Your task to perform on an android device: turn on location history Image 0: 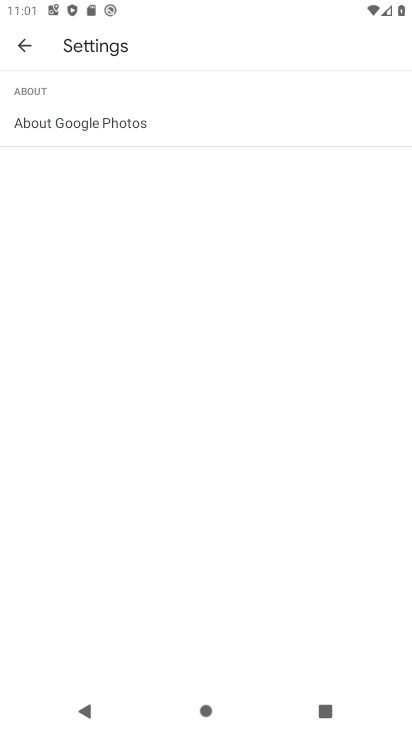
Step 0: press home button
Your task to perform on an android device: turn on location history Image 1: 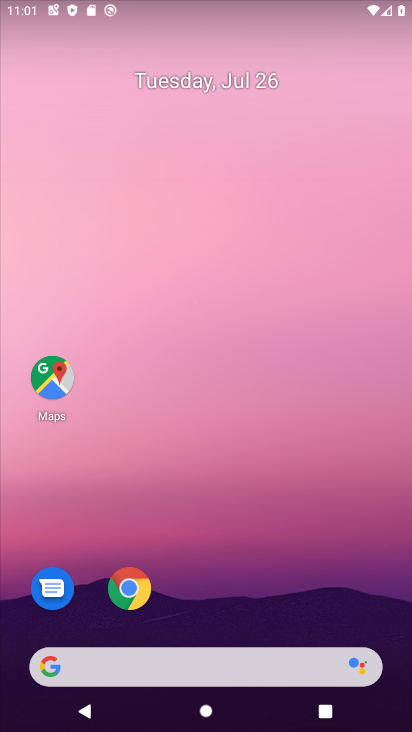
Step 1: drag from (226, 510) to (216, 107)
Your task to perform on an android device: turn on location history Image 2: 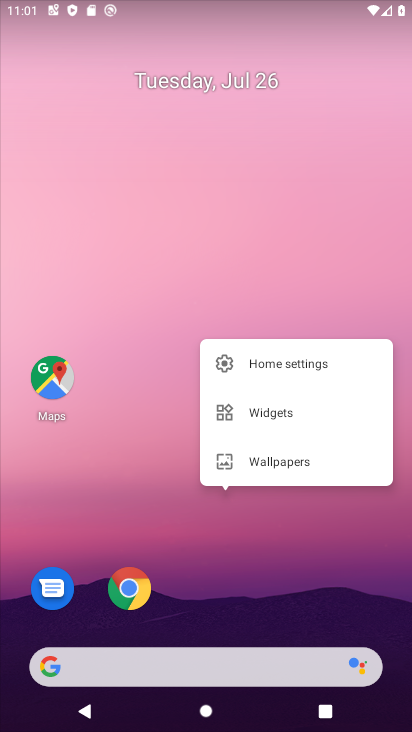
Step 2: click (216, 228)
Your task to perform on an android device: turn on location history Image 3: 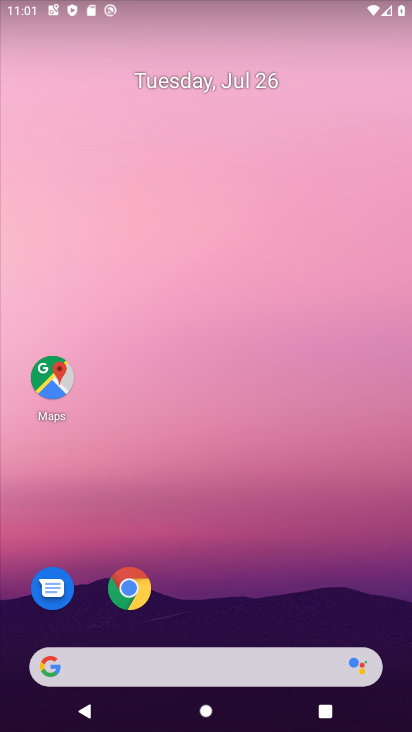
Step 3: drag from (203, 427) to (241, 115)
Your task to perform on an android device: turn on location history Image 4: 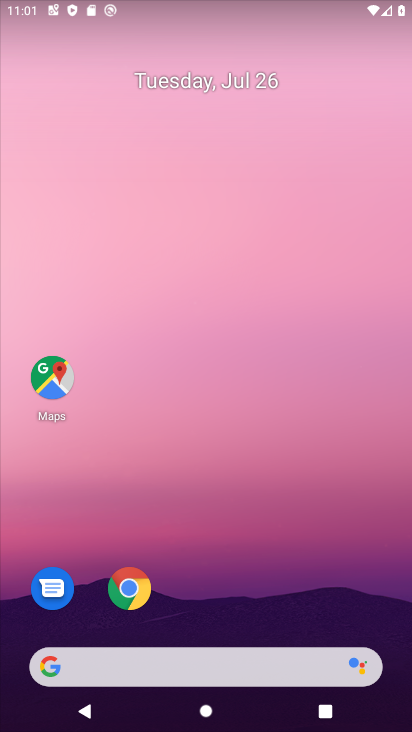
Step 4: drag from (221, 536) to (259, 268)
Your task to perform on an android device: turn on location history Image 5: 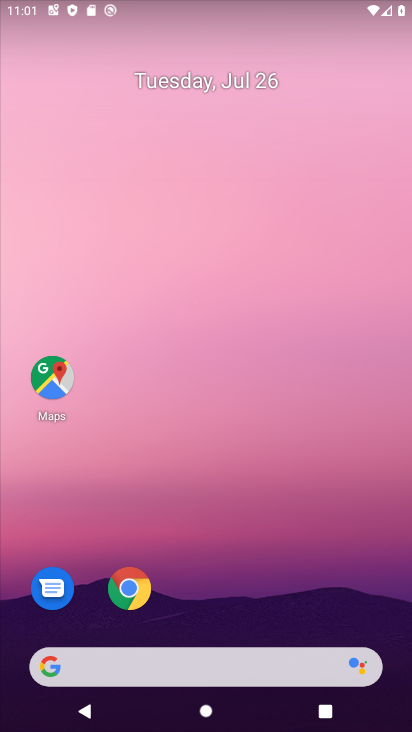
Step 5: drag from (257, 535) to (362, 18)
Your task to perform on an android device: turn on location history Image 6: 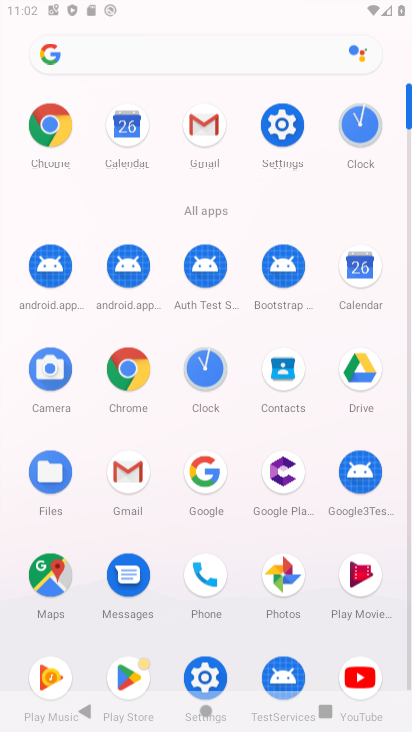
Step 6: click (286, 245)
Your task to perform on an android device: turn on location history Image 7: 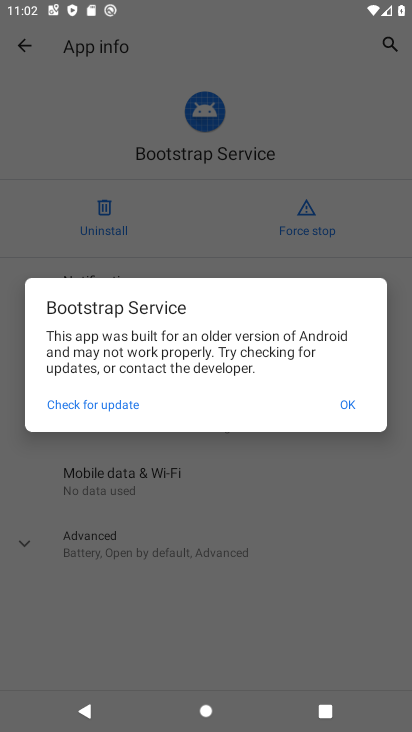
Step 7: click (346, 417)
Your task to perform on an android device: turn on location history Image 8: 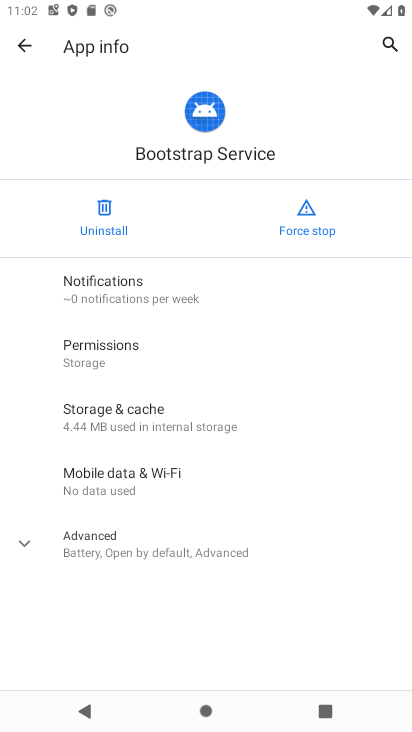
Step 8: task complete